Your task to perform on an android device: Search for razer blade on costco, select the first entry, add it to the cart, then select checkout. Image 0: 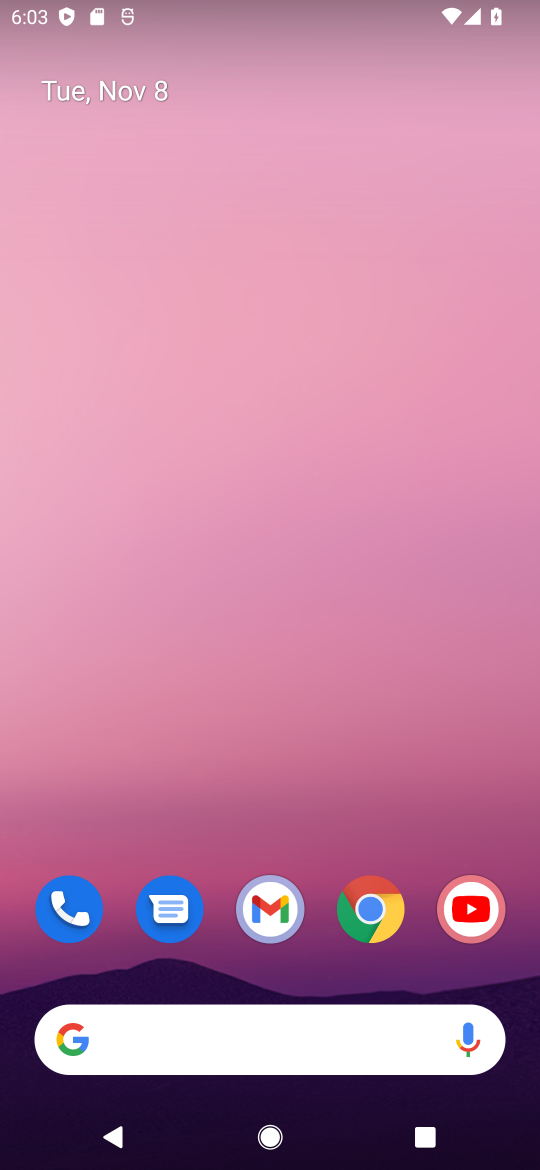
Step 0: press home button
Your task to perform on an android device: Search for razer blade on costco, select the first entry, add it to the cart, then select checkout. Image 1: 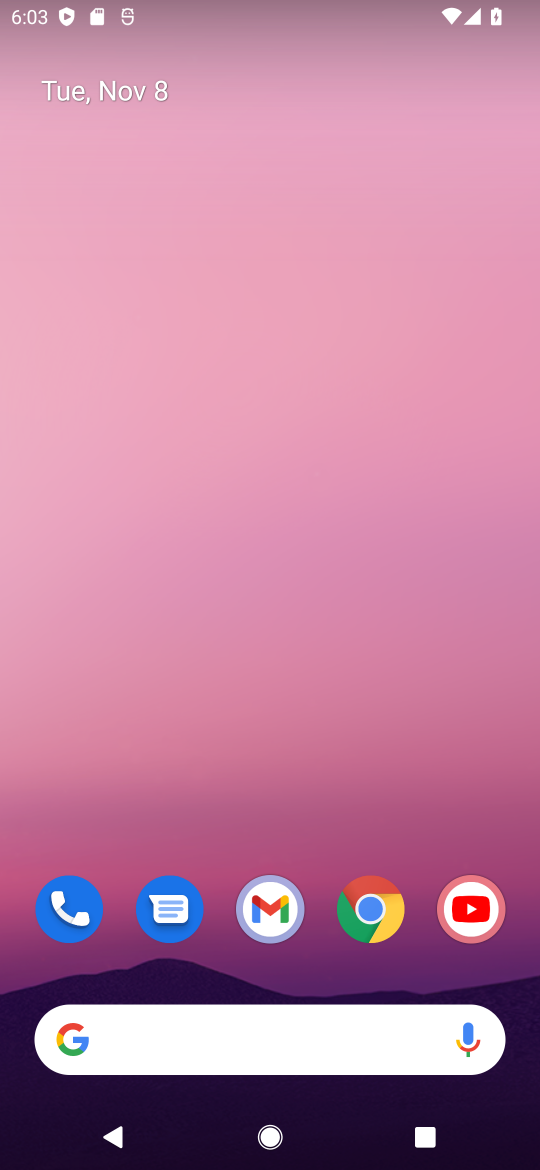
Step 1: click (364, 907)
Your task to perform on an android device: Search for razer blade on costco, select the first entry, add it to the cart, then select checkout. Image 2: 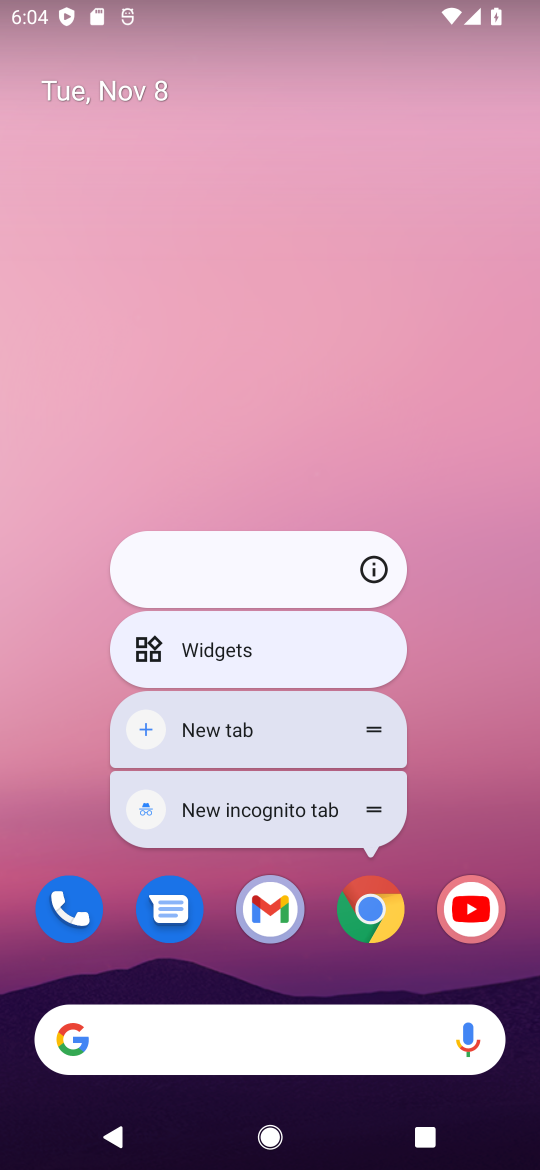
Step 2: click (370, 914)
Your task to perform on an android device: Search for razer blade on costco, select the first entry, add it to the cart, then select checkout. Image 3: 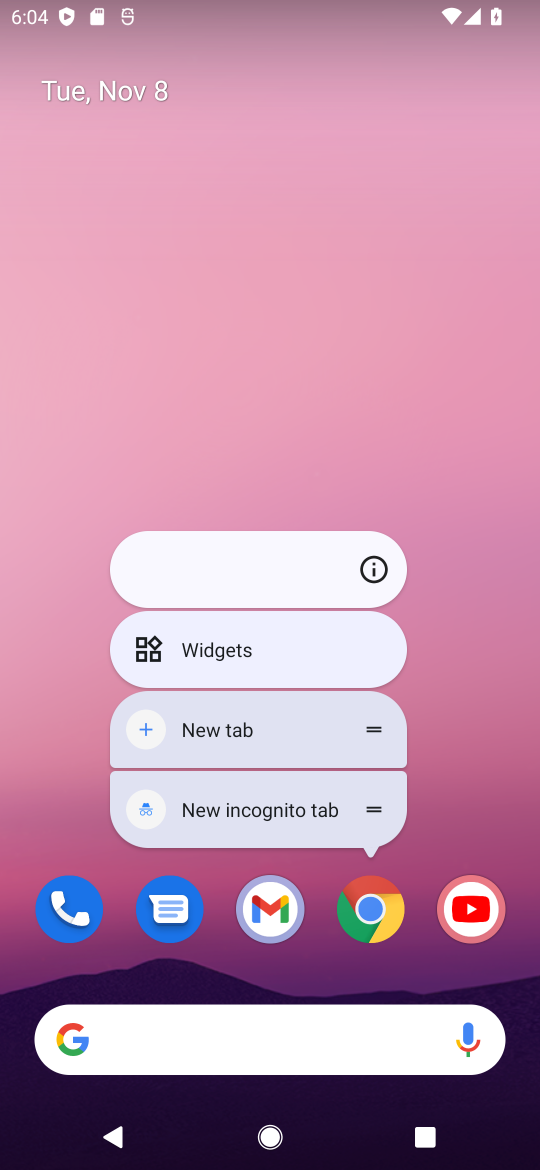
Step 3: click (370, 914)
Your task to perform on an android device: Search for razer blade on costco, select the first entry, add it to the cart, then select checkout. Image 4: 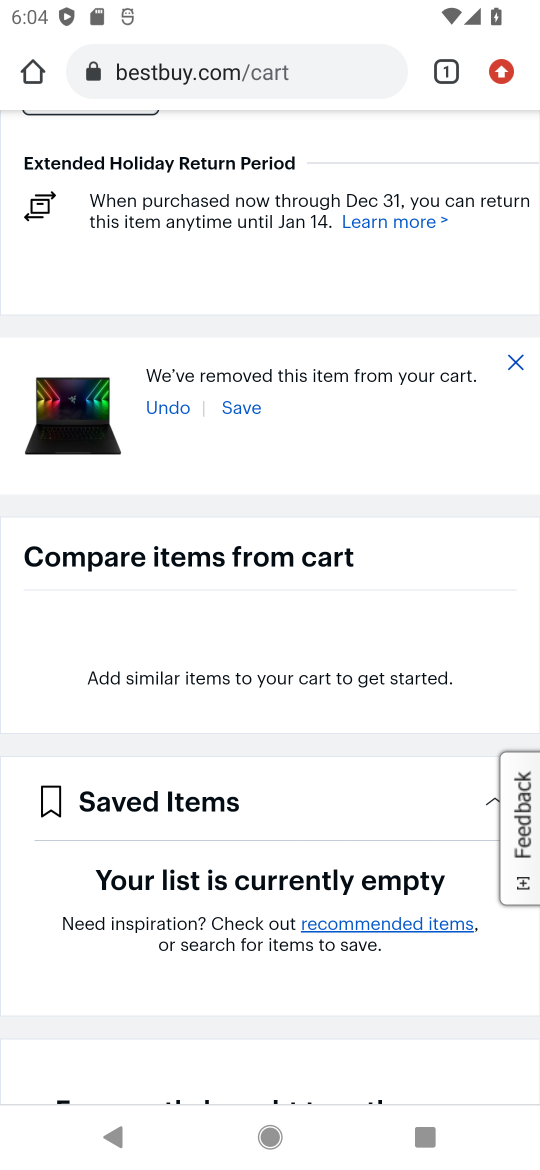
Step 4: click (293, 63)
Your task to perform on an android device: Search for razer blade on costco, select the first entry, add it to the cart, then select checkout. Image 5: 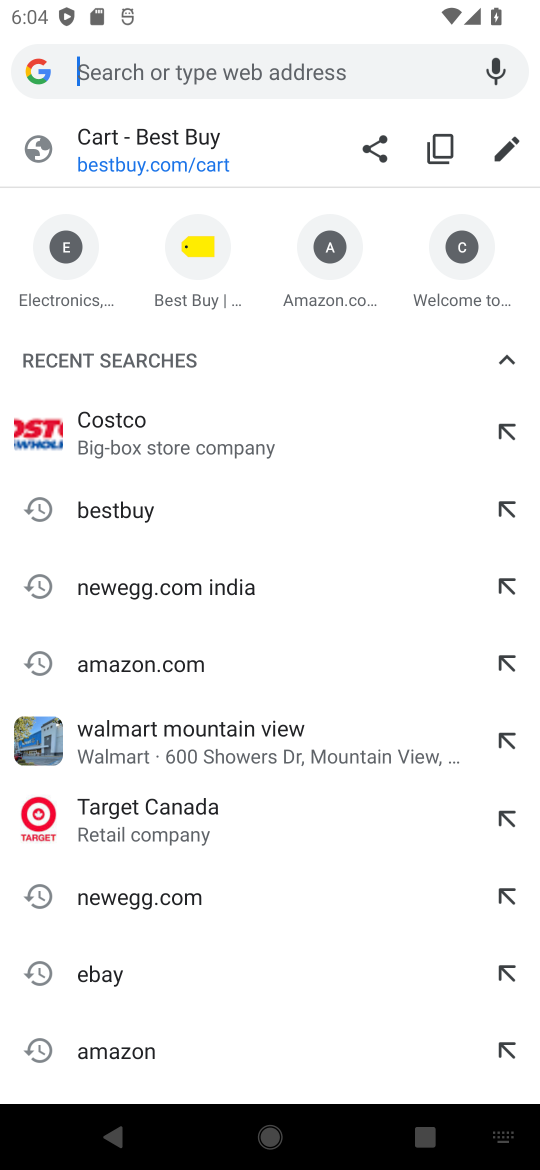
Step 5: click (135, 421)
Your task to perform on an android device: Search for razer blade on costco, select the first entry, add it to the cart, then select checkout. Image 6: 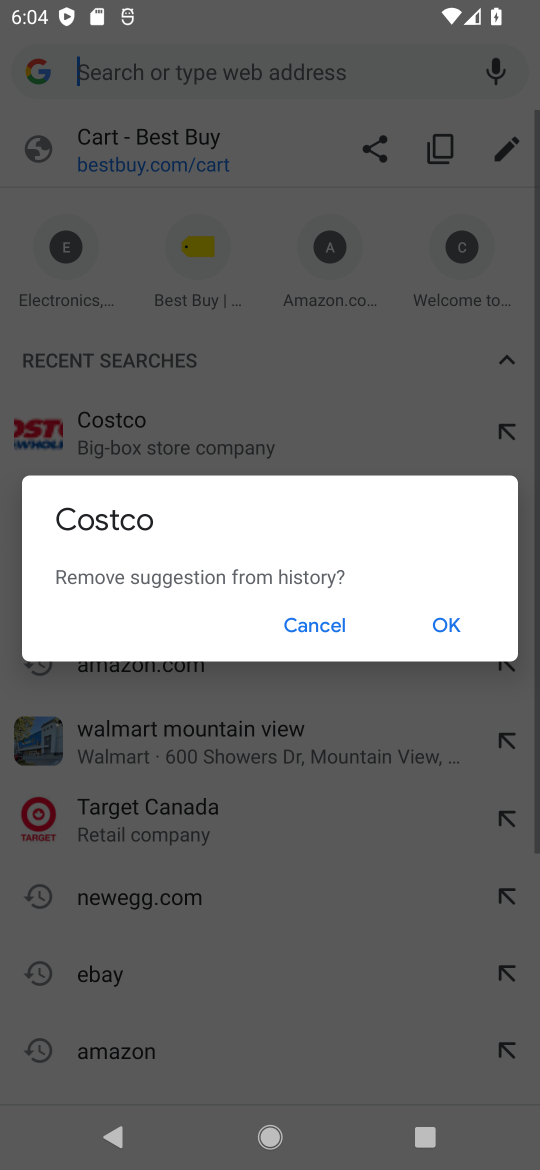
Step 6: click (124, 417)
Your task to perform on an android device: Search for razer blade on costco, select the first entry, add it to the cart, then select checkout. Image 7: 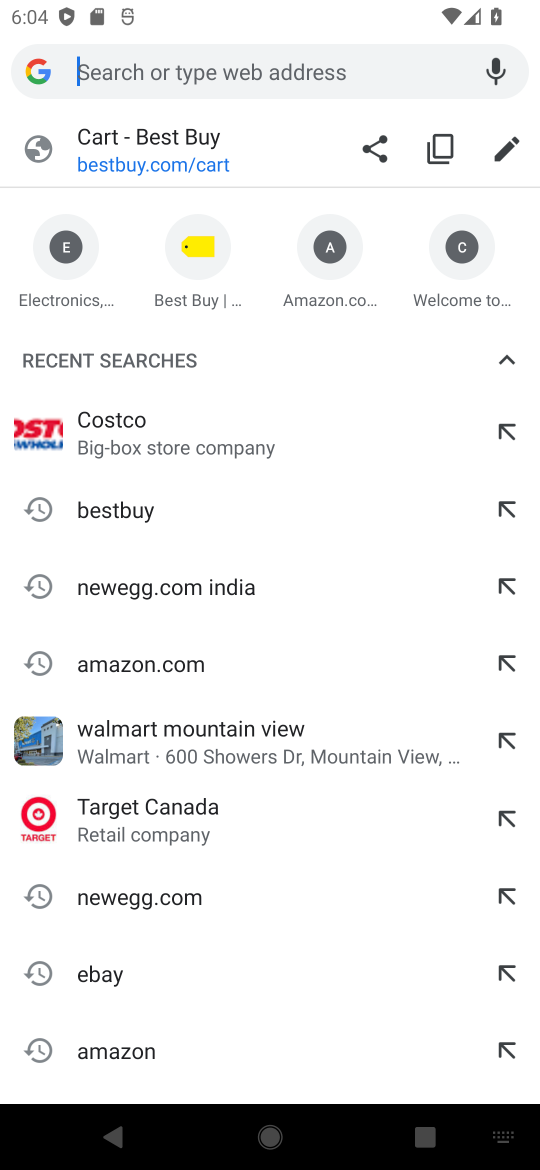
Step 7: click (109, 414)
Your task to perform on an android device: Search for razer blade on costco, select the first entry, add it to the cart, then select checkout. Image 8: 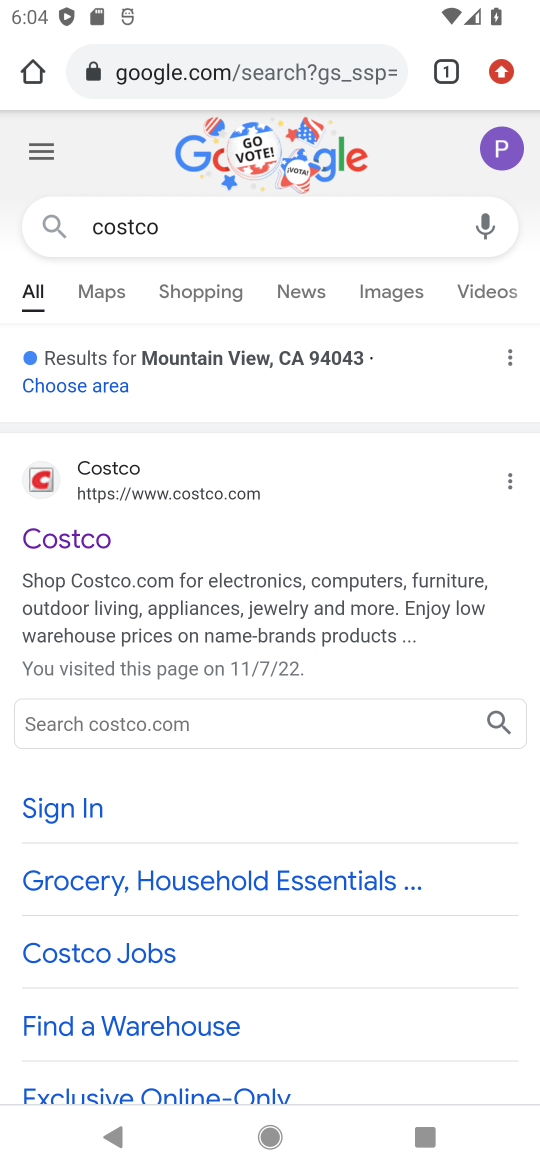
Step 8: click (48, 527)
Your task to perform on an android device: Search for razer blade on costco, select the first entry, add it to the cart, then select checkout. Image 9: 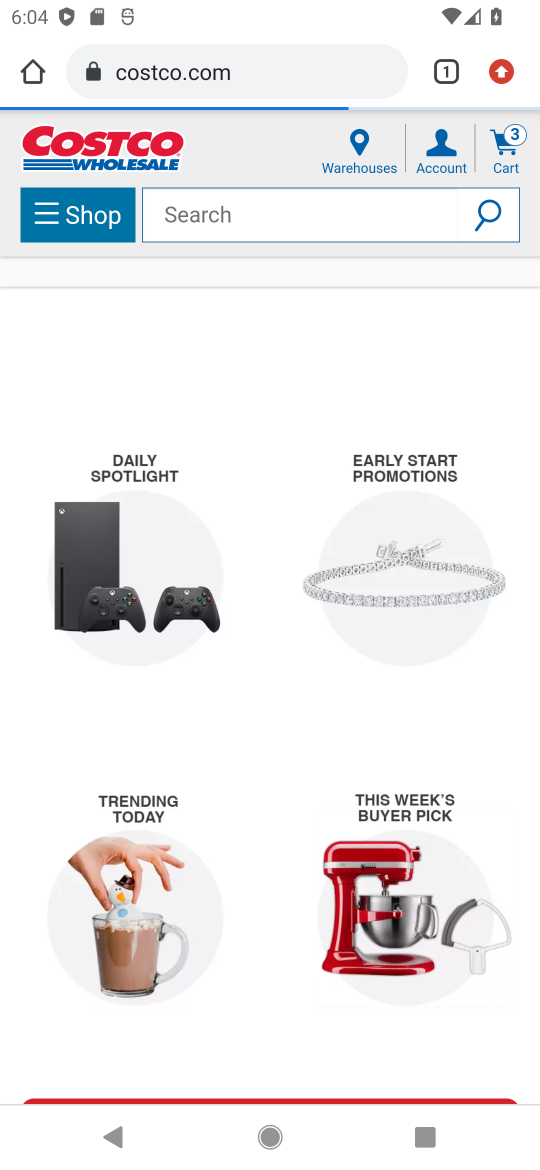
Step 9: click (261, 206)
Your task to perform on an android device: Search for razer blade on costco, select the first entry, add it to the cart, then select checkout. Image 10: 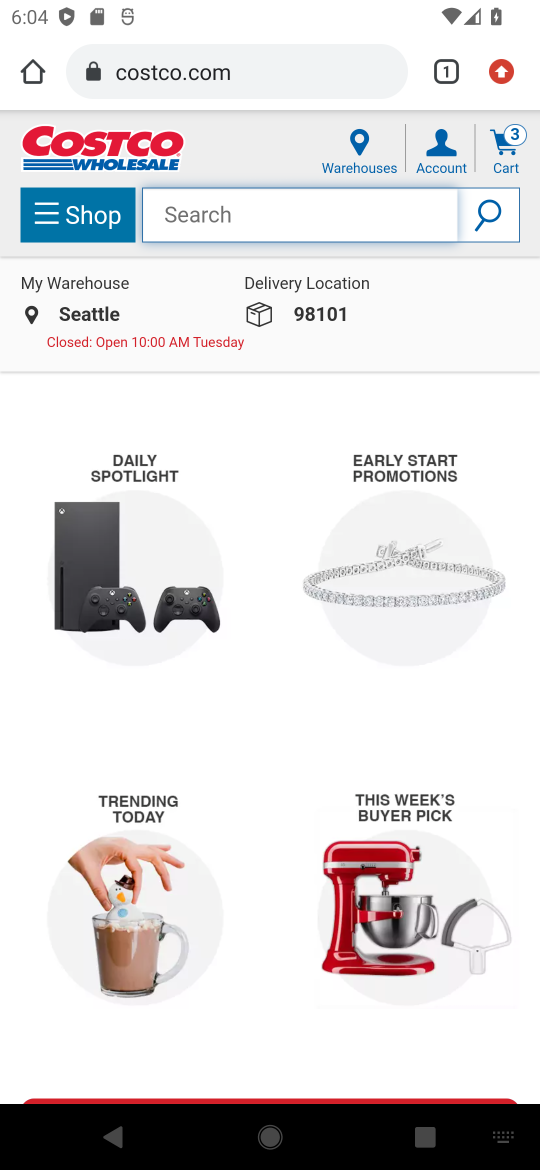
Step 10: click (190, 207)
Your task to perform on an android device: Search for razer blade on costco, select the first entry, add it to the cart, then select checkout. Image 11: 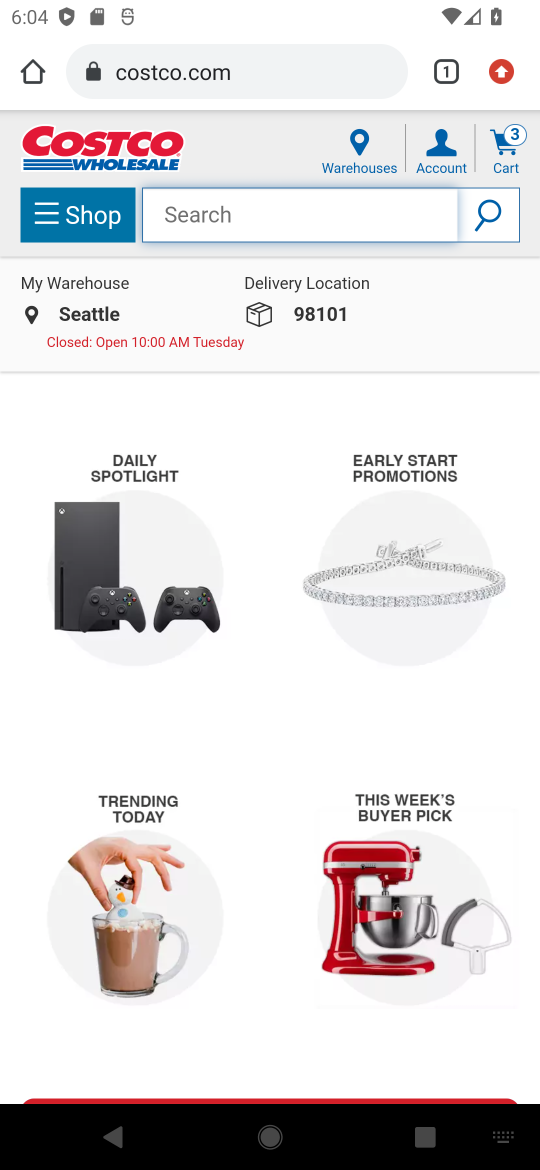
Step 11: type "razer blade"
Your task to perform on an android device: Search for razer blade on costco, select the first entry, add it to the cart, then select checkout. Image 12: 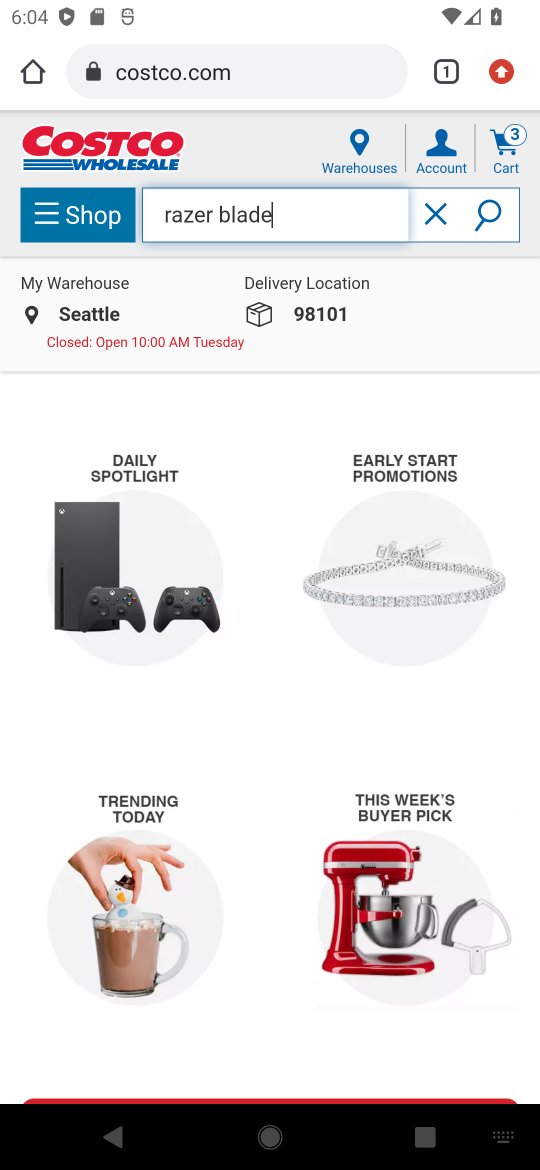
Step 12: press enter
Your task to perform on an android device: Search for razer blade on costco, select the first entry, add it to the cart, then select checkout. Image 13: 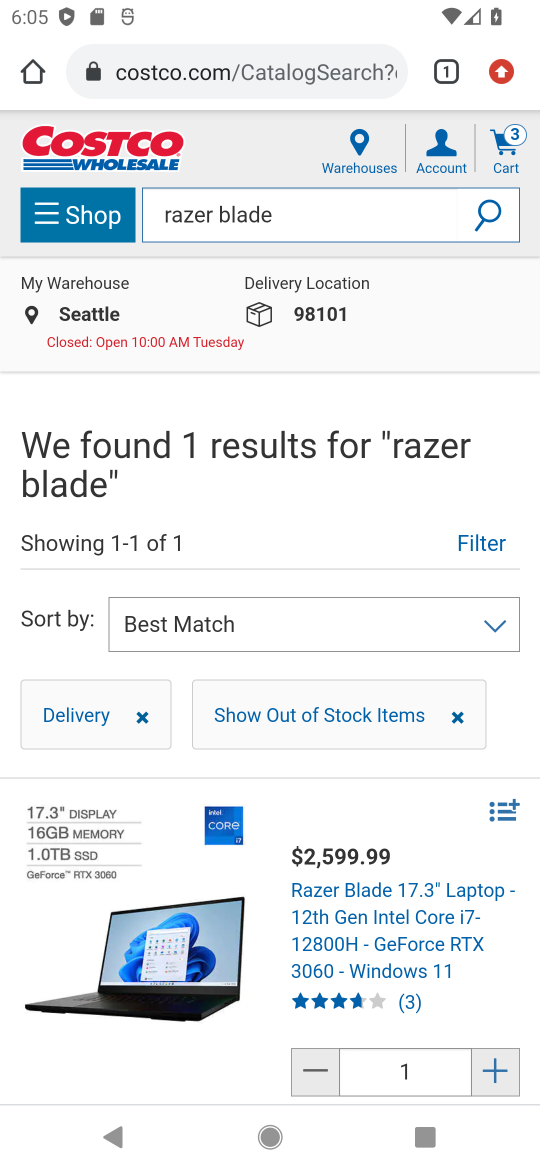
Step 13: drag from (231, 859) to (326, 455)
Your task to perform on an android device: Search for razer blade on costco, select the first entry, add it to the cart, then select checkout. Image 14: 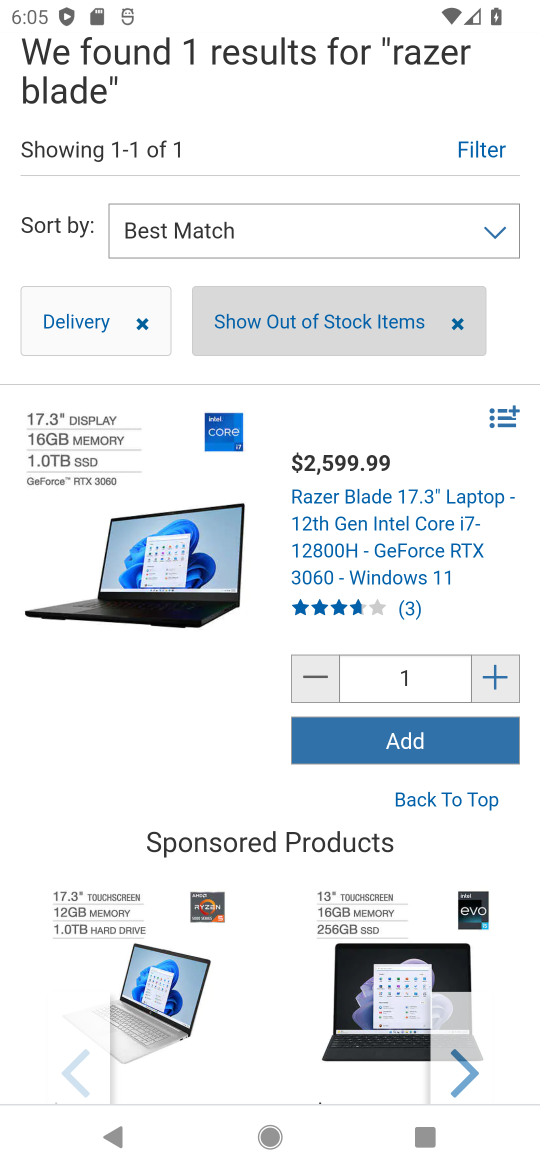
Step 14: click (414, 734)
Your task to perform on an android device: Search for razer blade on costco, select the first entry, add it to the cart, then select checkout. Image 15: 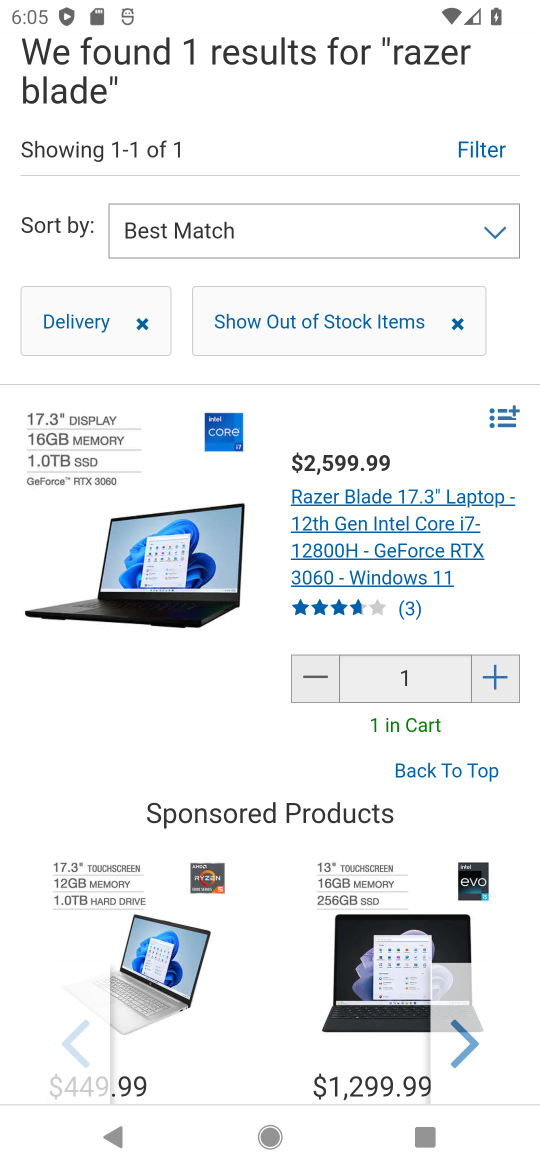
Step 15: drag from (394, 379) to (307, 821)
Your task to perform on an android device: Search for razer blade on costco, select the first entry, add it to the cart, then select checkout. Image 16: 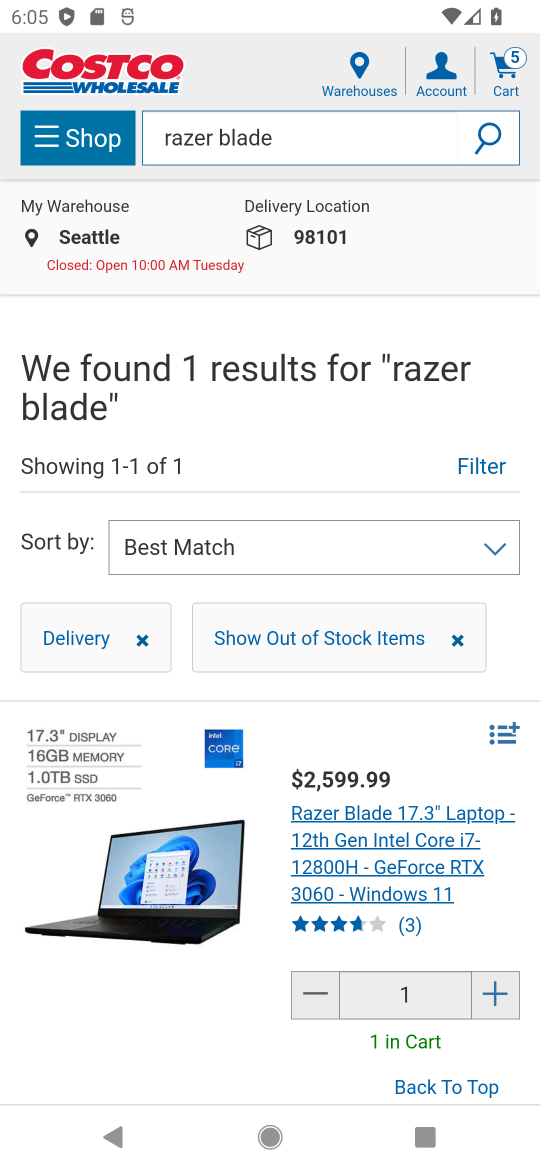
Step 16: click (509, 153)
Your task to perform on an android device: Search for razer blade on costco, select the first entry, add it to the cart, then select checkout. Image 17: 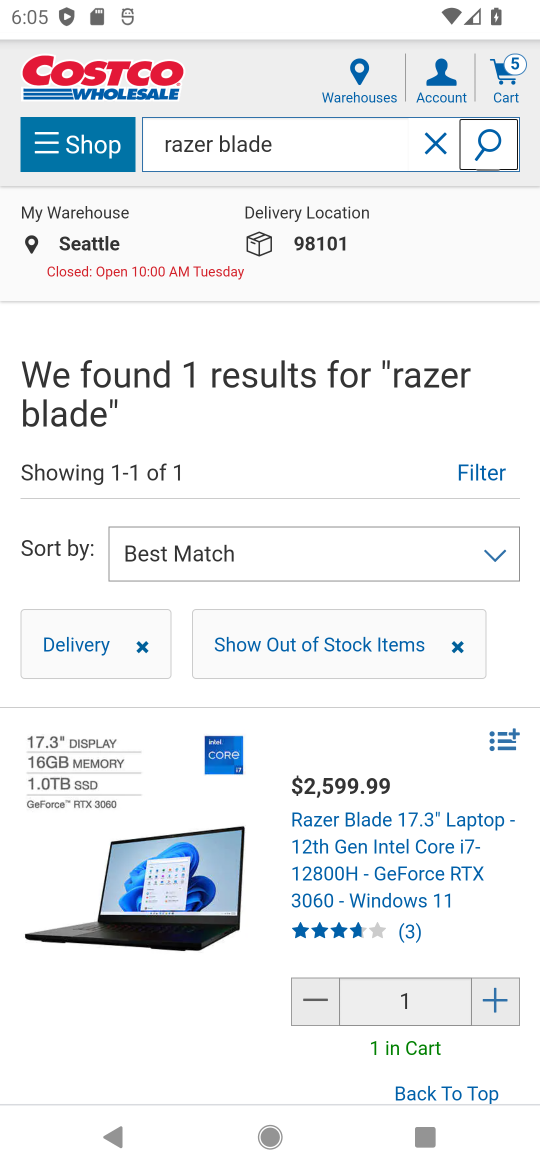
Step 17: click (489, 69)
Your task to perform on an android device: Search for razer blade on costco, select the first entry, add it to the cart, then select checkout. Image 18: 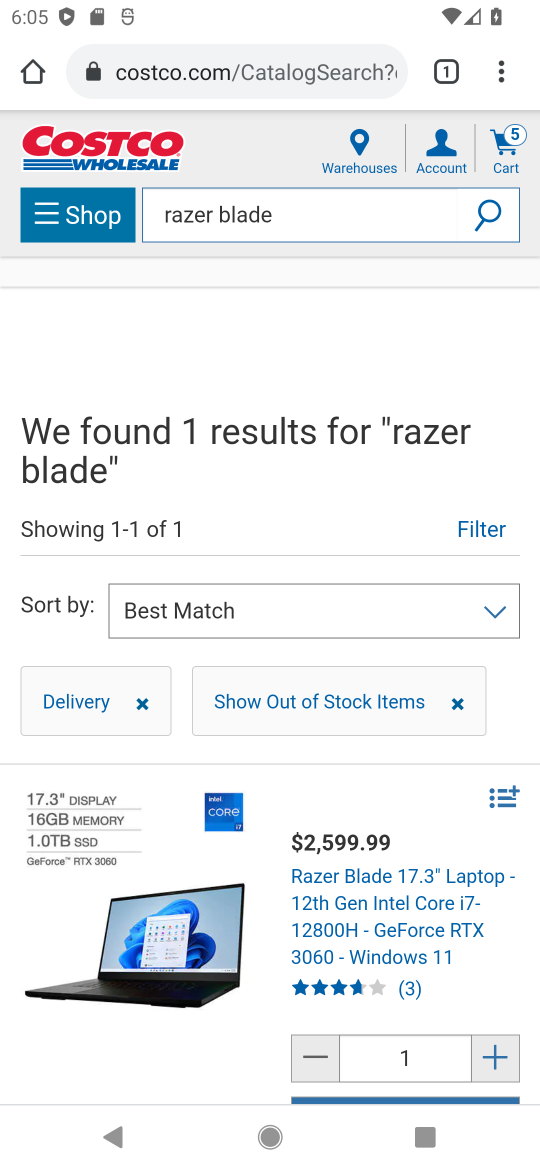
Step 18: click (508, 146)
Your task to perform on an android device: Search for razer blade on costco, select the first entry, add it to the cart, then select checkout. Image 19: 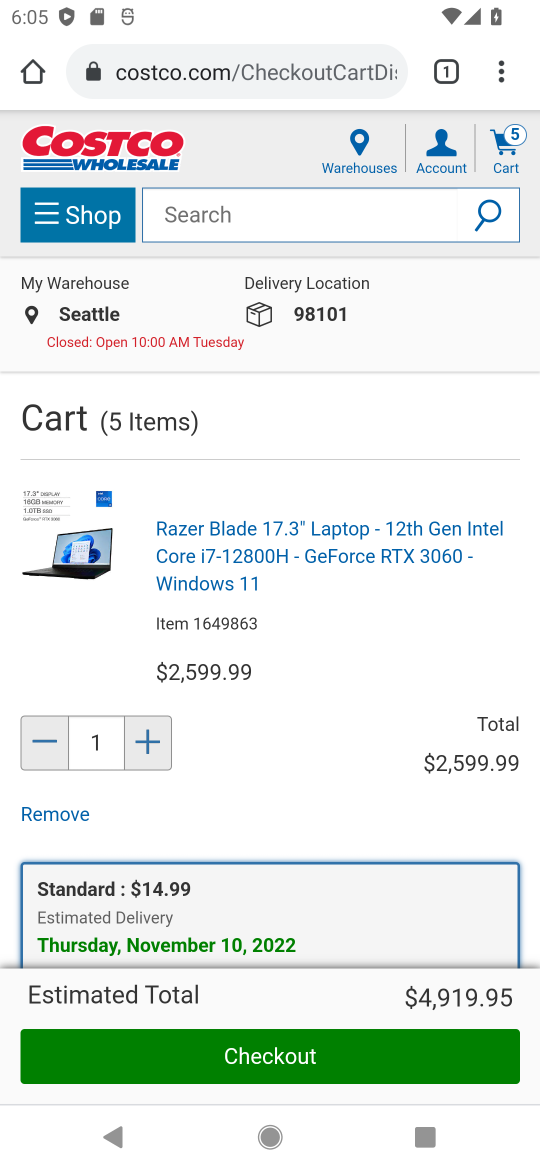
Step 19: drag from (209, 718) to (308, 103)
Your task to perform on an android device: Search for razer blade on costco, select the first entry, add it to the cart, then select checkout. Image 20: 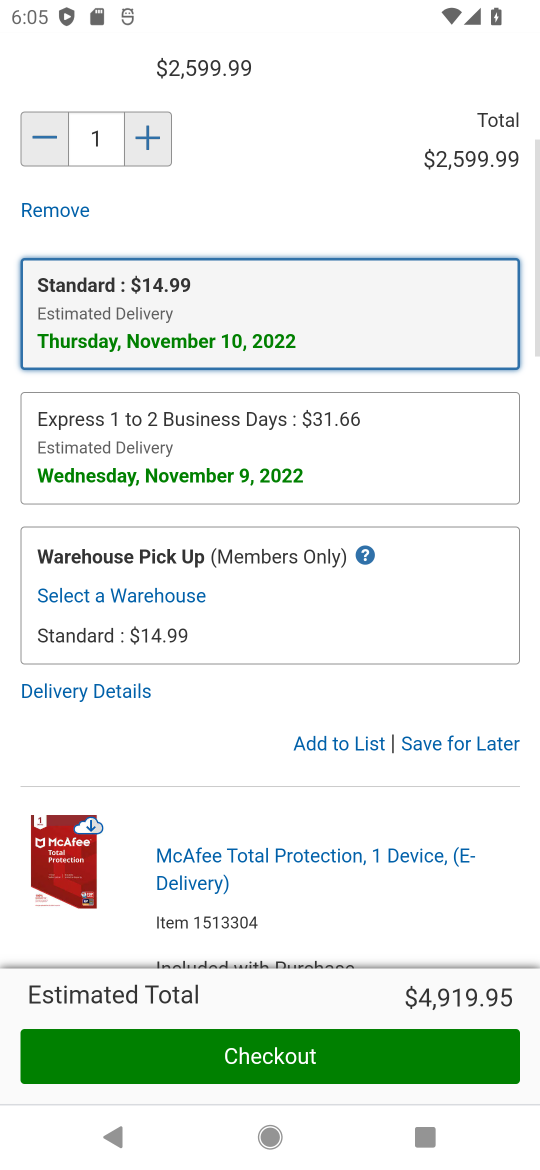
Step 20: drag from (219, 840) to (255, 175)
Your task to perform on an android device: Search for razer blade on costco, select the first entry, add it to the cart, then select checkout. Image 21: 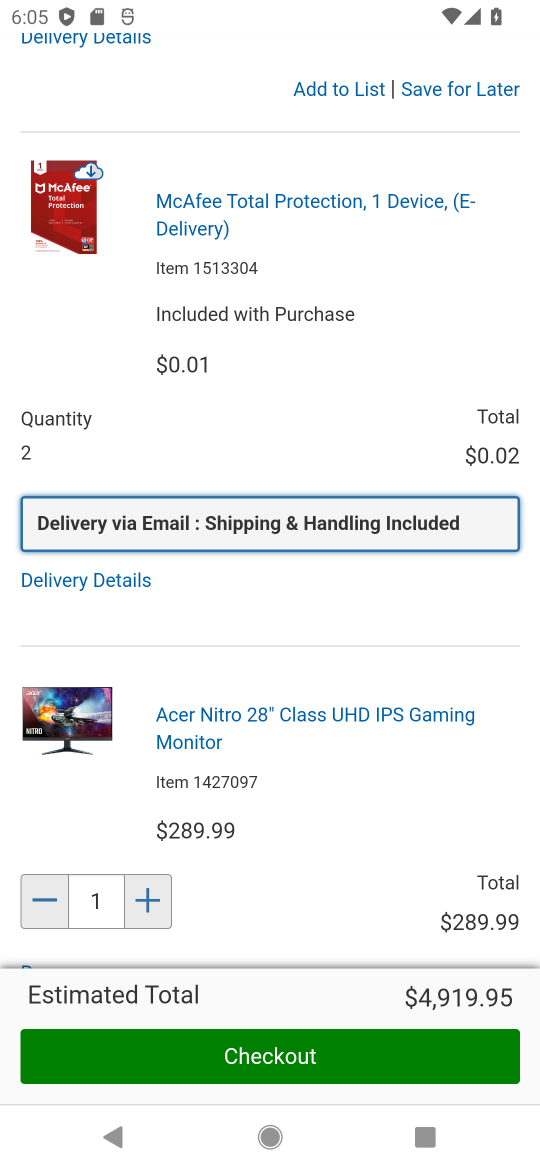
Step 21: drag from (298, 824) to (306, 369)
Your task to perform on an android device: Search for razer blade on costco, select the first entry, add it to the cart, then select checkout. Image 22: 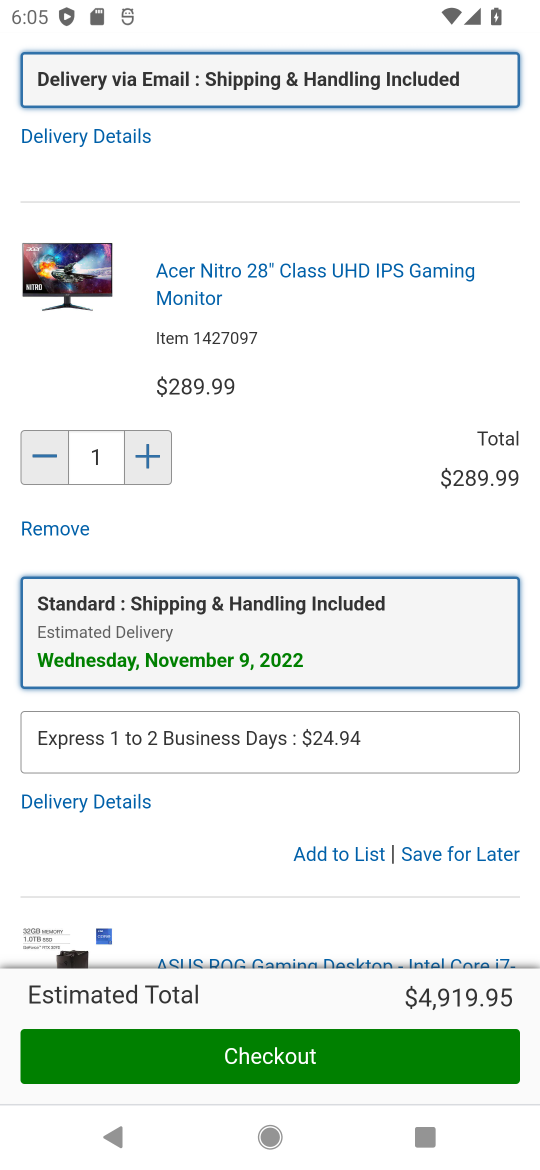
Step 22: click (61, 524)
Your task to perform on an android device: Search for razer blade on costco, select the first entry, add it to the cart, then select checkout. Image 23: 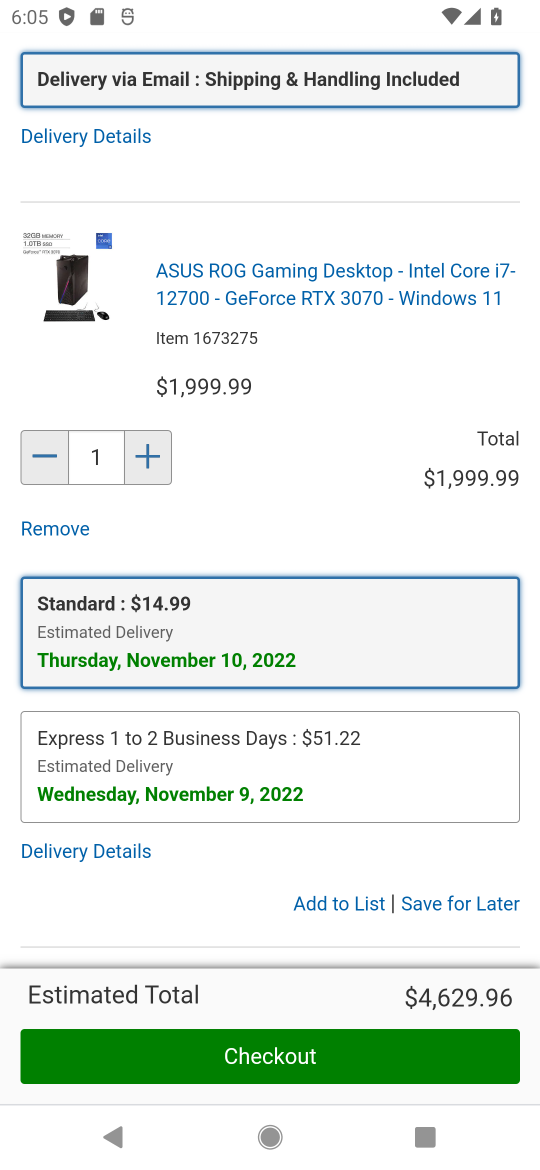
Step 23: click (65, 523)
Your task to perform on an android device: Search for razer blade on costco, select the first entry, add it to the cart, then select checkout. Image 24: 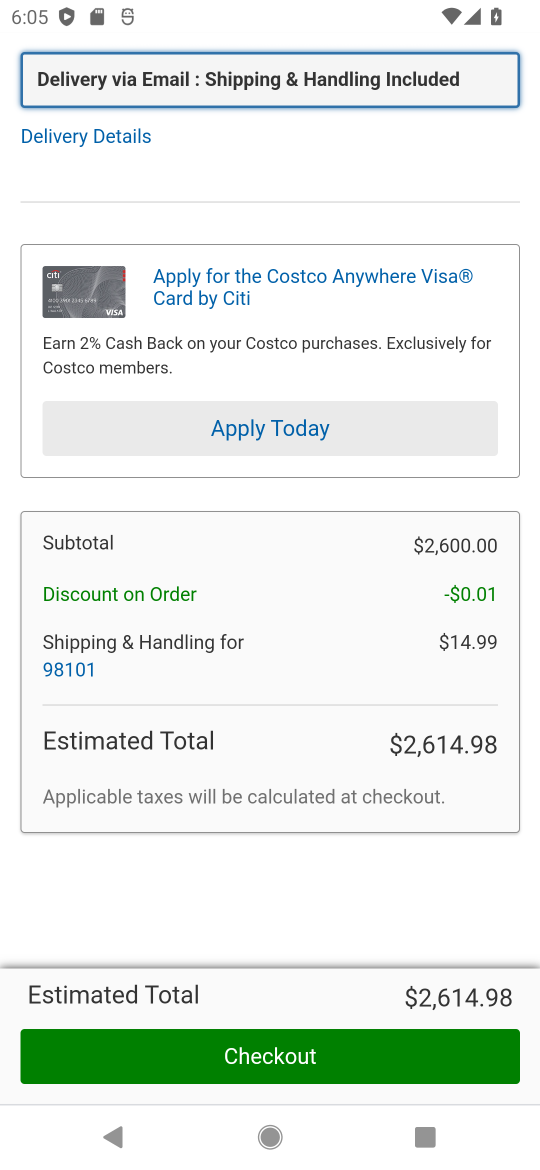
Step 24: drag from (173, 685) to (288, 21)
Your task to perform on an android device: Search for razer blade on costco, select the first entry, add it to the cart, then select checkout. Image 25: 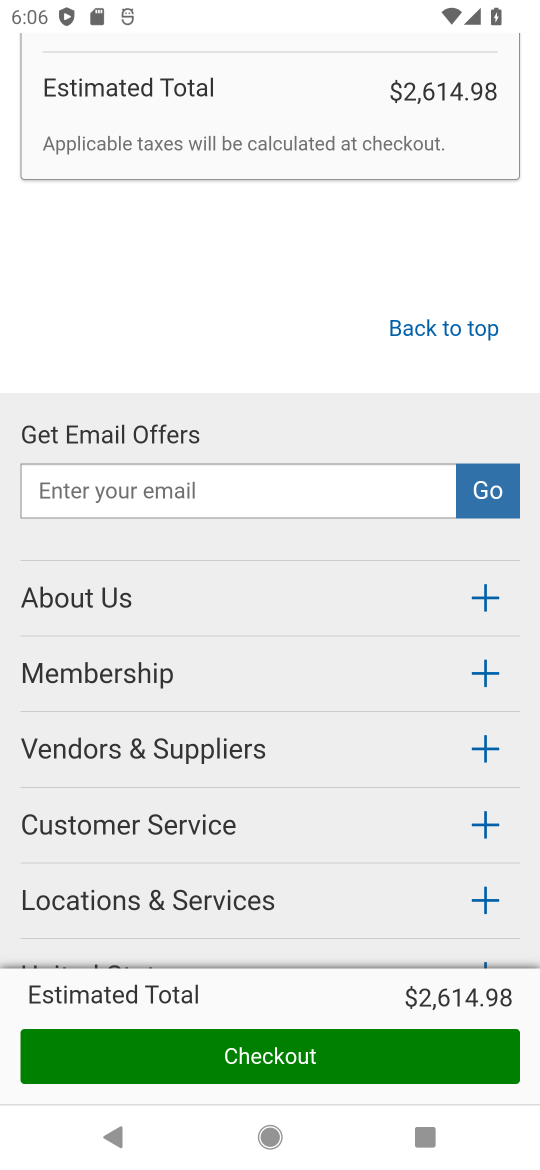
Step 25: drag from (348, 349) to (364, 1005)
Your task to perform on an android device: Search for razer blade on costco, select the first entry, add it to the cart, then select checkout. Image 26: 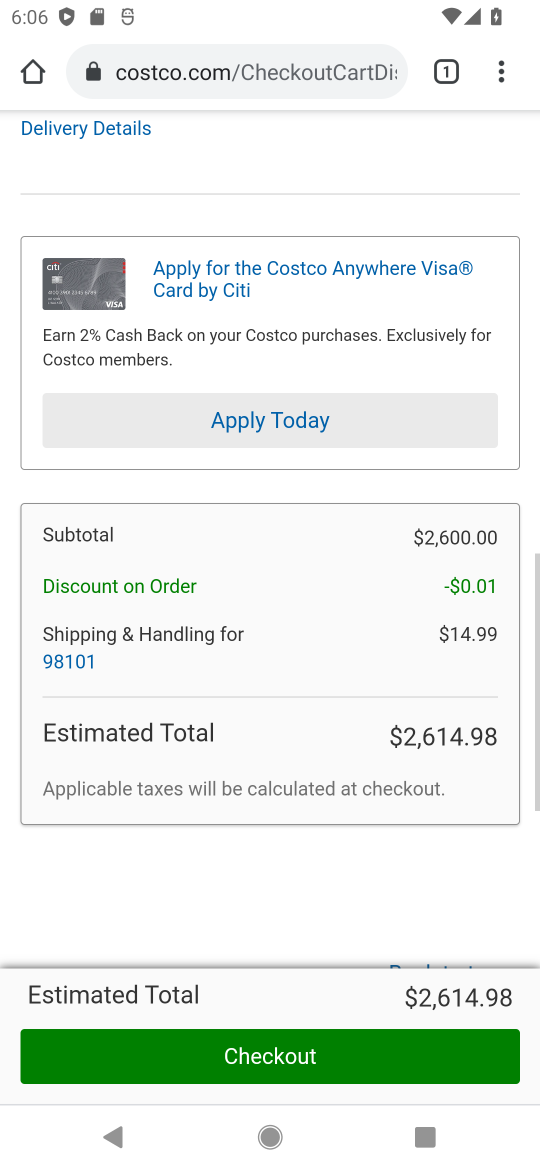
Step 26: drag from (378, 339) to (267, 1118)
Your task to perform on an android device: Search for razer blade on costco, select the first entry, add it to the cart, then select checkout. Image 27: 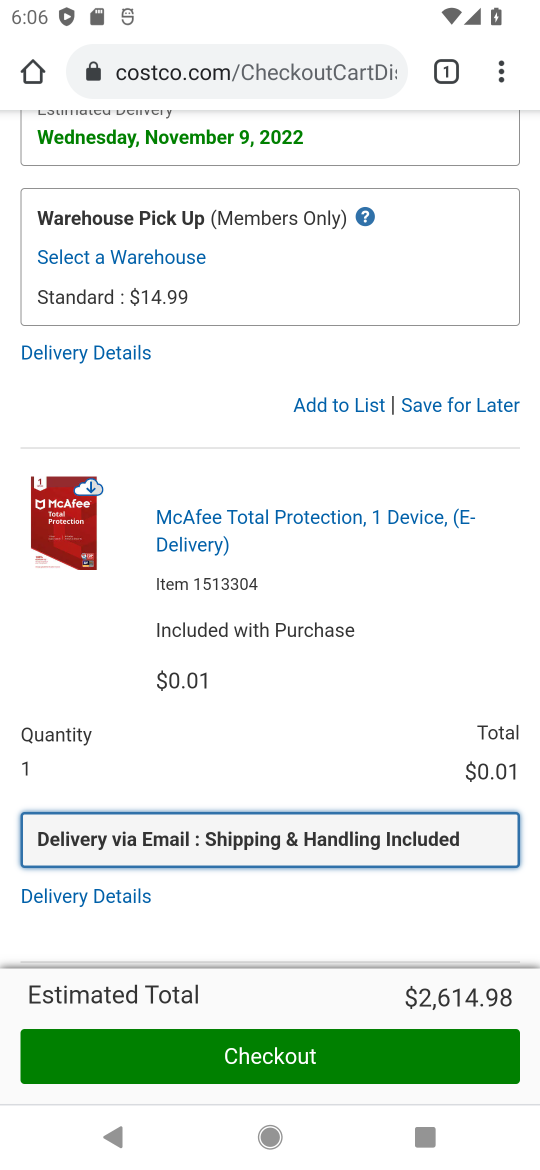
Step 27: drag from (370, 314) to (435, 929)
Your task to perform on an android device: Search for razer blade on costco, select the first entry, add it to the cart, then select checkout. Image 28: 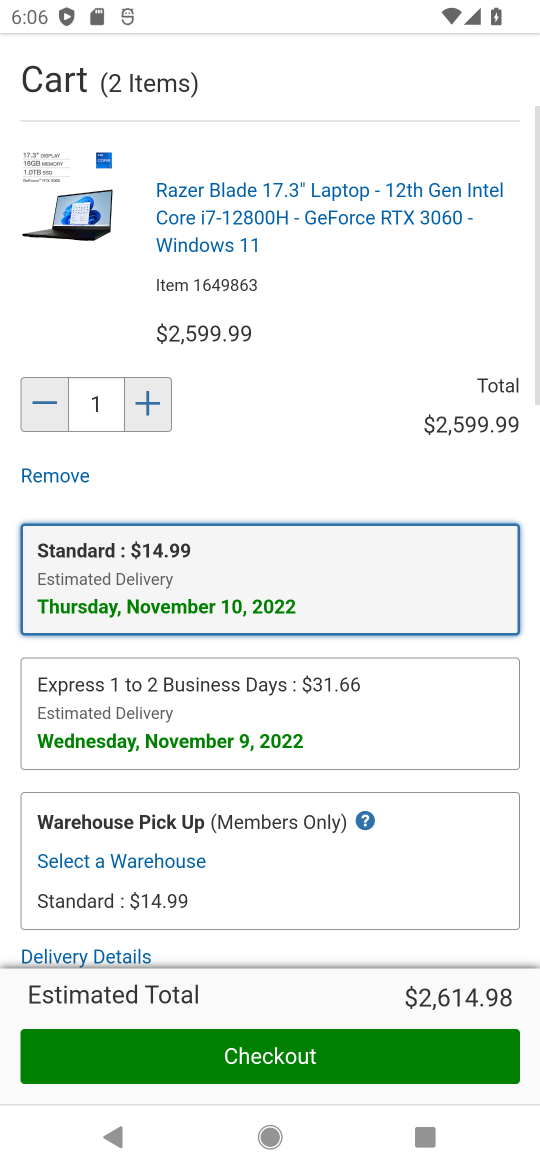
Step 28: drag from (372, 233) to (443, 905)
Your task to perform on an android device: Search for razer blade on costco, select the first entry, add it to the cart, then select checkout. Image 29: 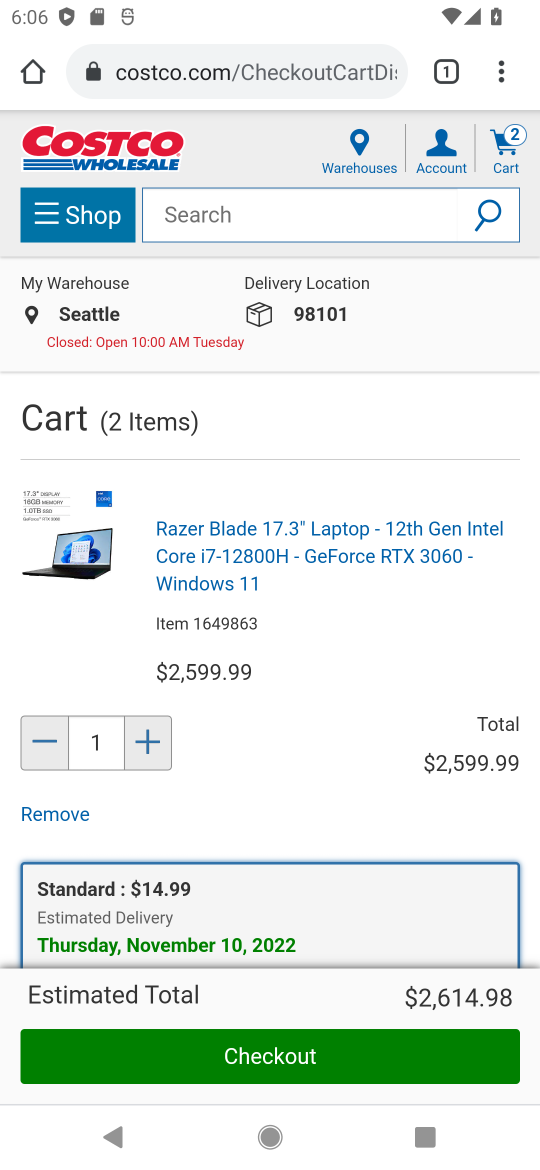
Step 29: drag from (341, 806) to (377, 324)
Your task to perform on an android device: Search for razer blade on costco, select the first entry, add it to the cart, then select checkout. Image 30: 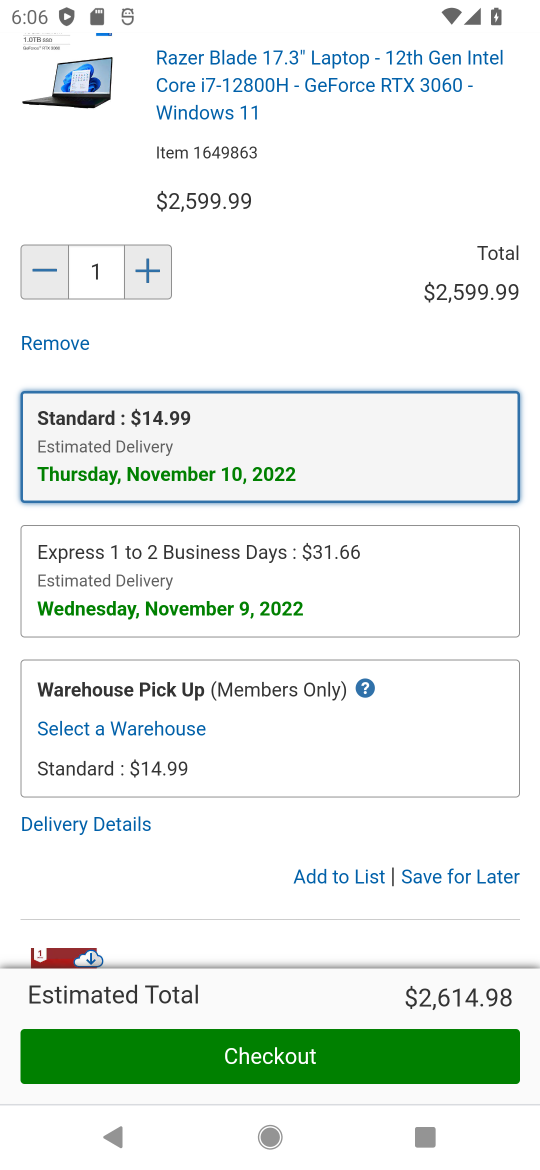
Step 30: drag from (219, 846) to (315, 128)
Your task to perform on an android device: Search for razer blade on costco, select the first entry, add it to the cart, then select checkout. Image 31: 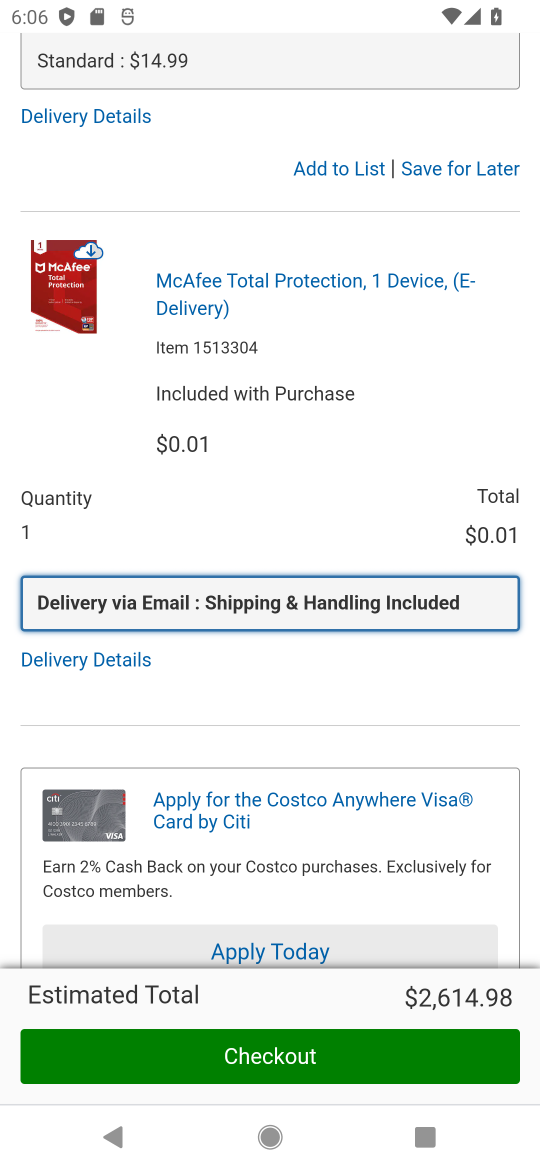
Step 31: drag from (250, 698) to (308, 756)
Your task to perform on an android device: Search for razer blade on costco, select the first entry, add it to the cart, then select checkout. Image 32: 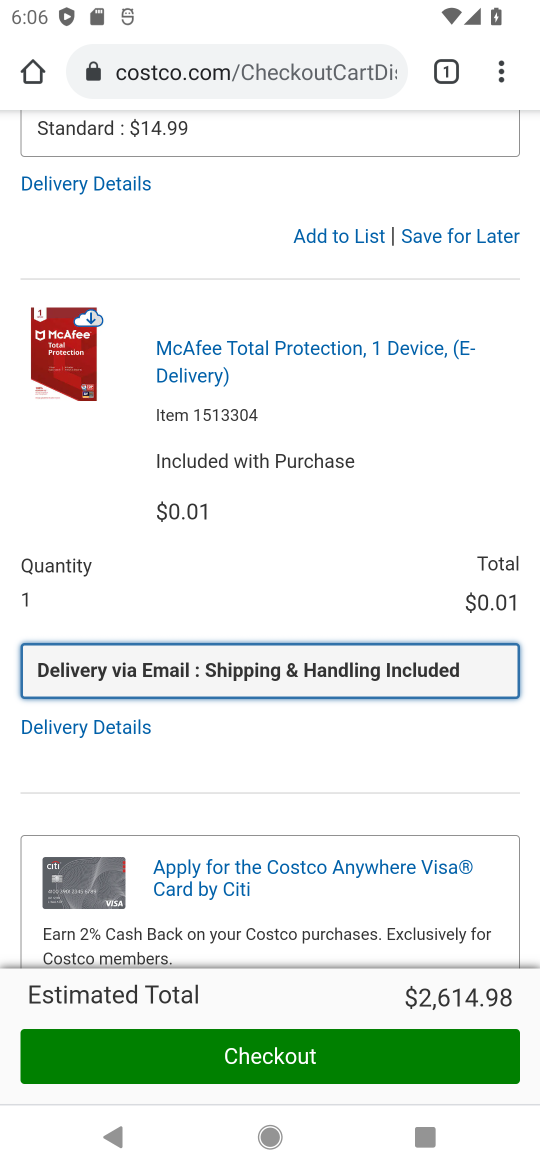
Step 32: drag from (338, 414) to (328, 642)
Your task to perform on an android device: Search for razer blade on costco, select the first entry, add it to the cart, then select checkout. Image 33: 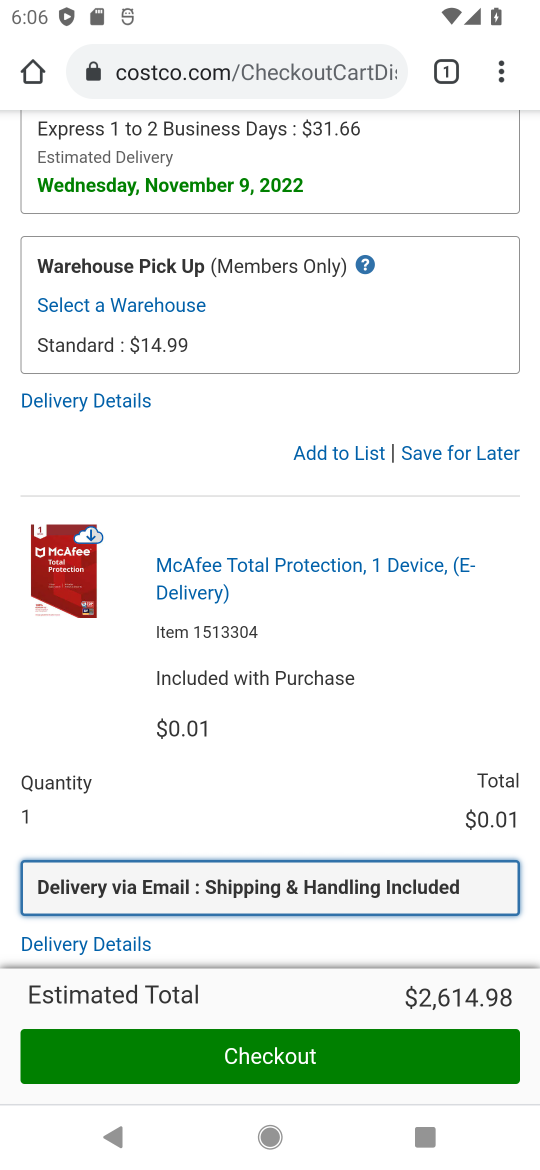
Step 33: drag from (338, 548) to (338, 767)
Your task to perform on an android device: Search for razer blade on costco, select the first entry, add it to the cart, then select checkout. Image 34: 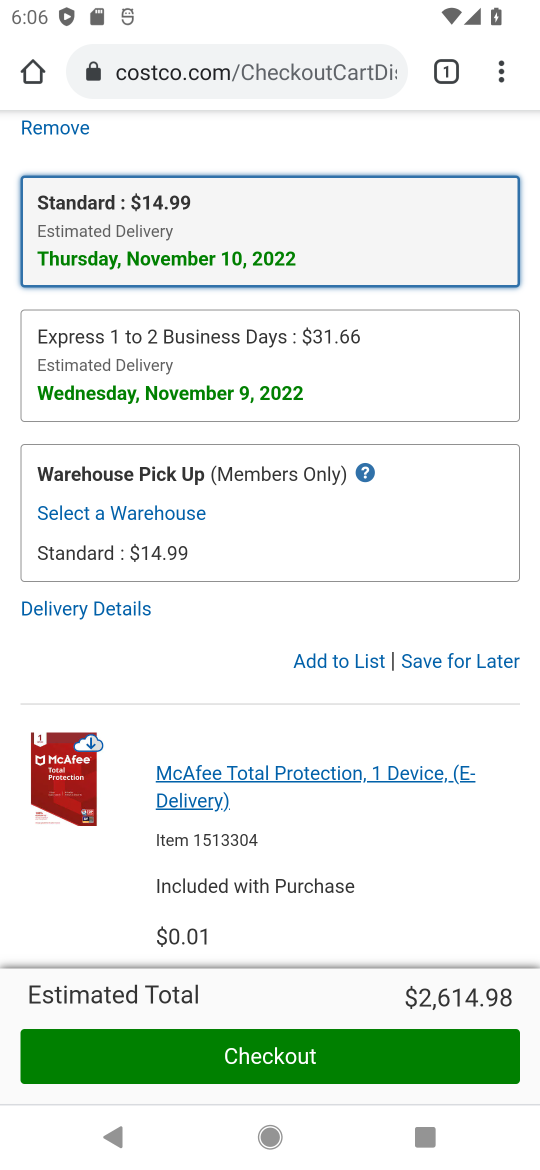
Step 34: drag from (313, 880) to (346, 424)
Your task to perform on an android device: Search for razer blade on costco, select the first entry, add it to the cart, then select checkout. Image 35: 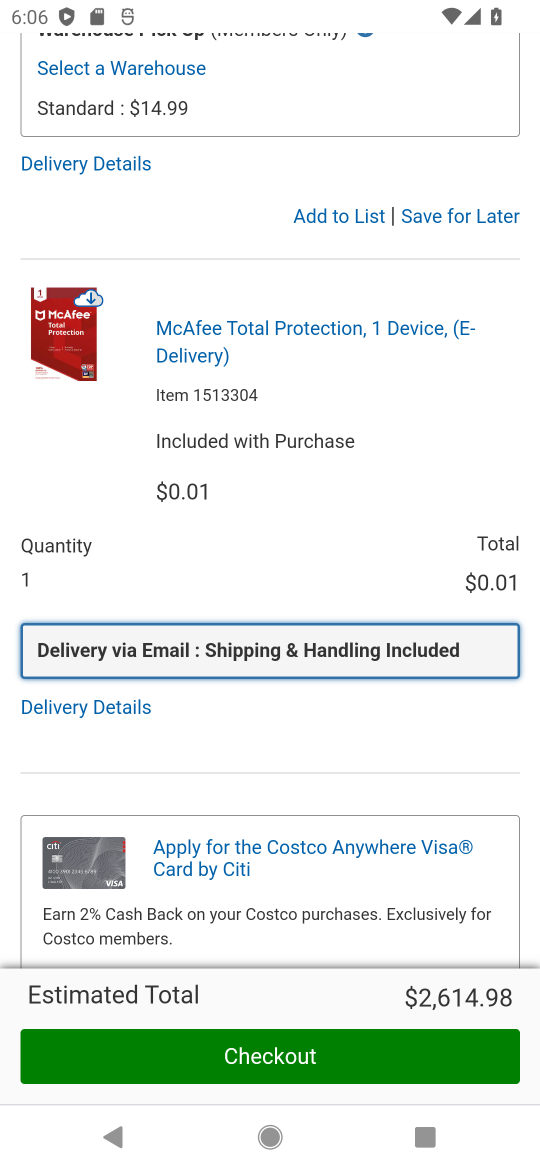
Step 35: click (276, 1053)
Your task to perform on an android device: Search for razer blade on costco, select the first entry, add it to the cart, then select checkout. Image 36: 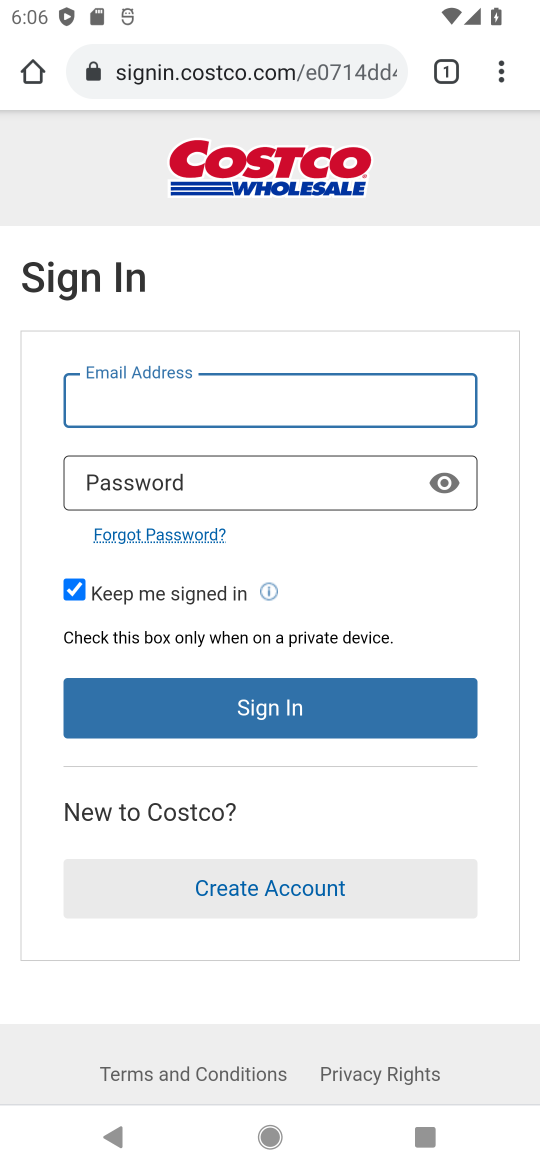
Step 36: task complete